Your task to perform on an android device: Open eBay Image 0: 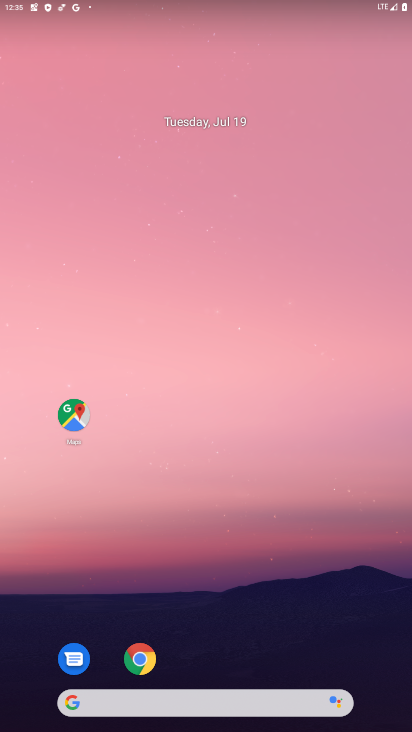
Step 0: click (140, 659)
Your task to perform on an android device: Open eBay Image 1: 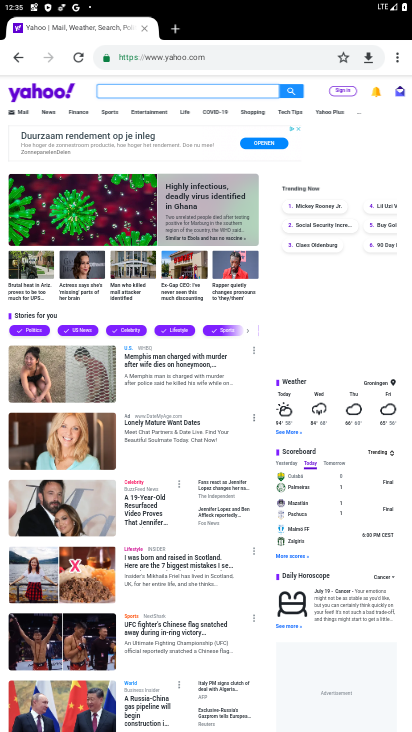
Step 1: click (237, 59)
Your task to perform on an android device: Open eBay Image 2: 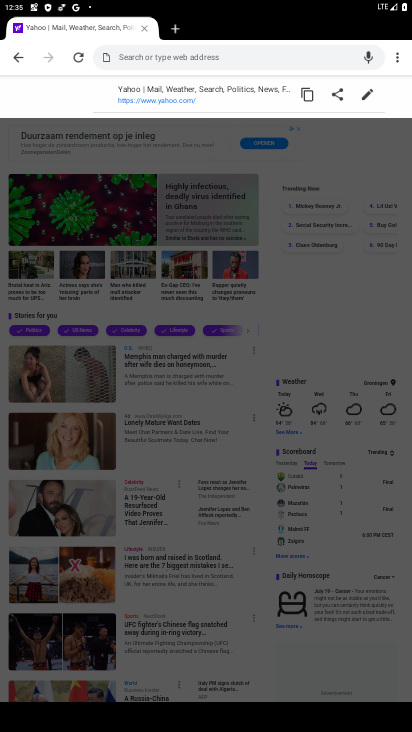
Step 2: type "eBay"
Your task to perform on an android device: Open eBay Image 3: 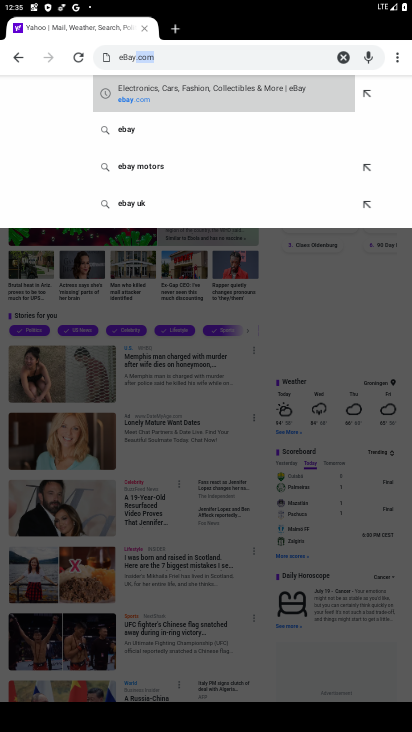
Step 3: click (120, 132)
Your task to perform on an android device: Open eBay Image 4: 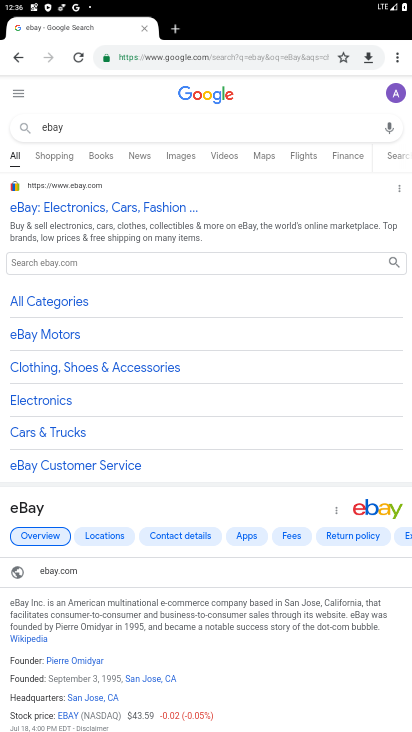
Step 4: click (85, 205)
Your task to perform on an android device: Open eBay Image 5: 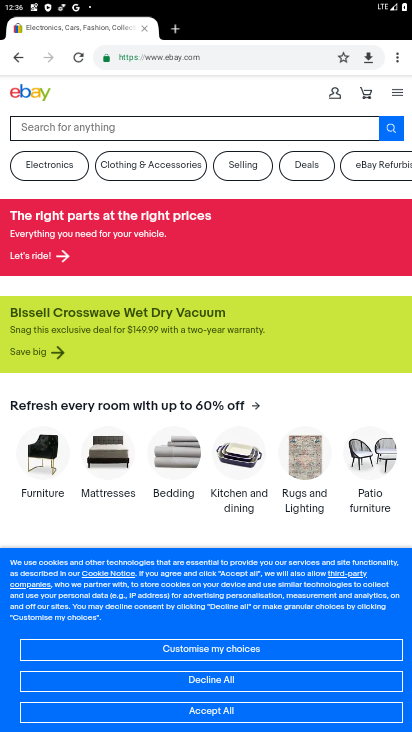
Step 5: task complete